Your task to perform on an android device: turn off javascript in the chrome app Image 0: 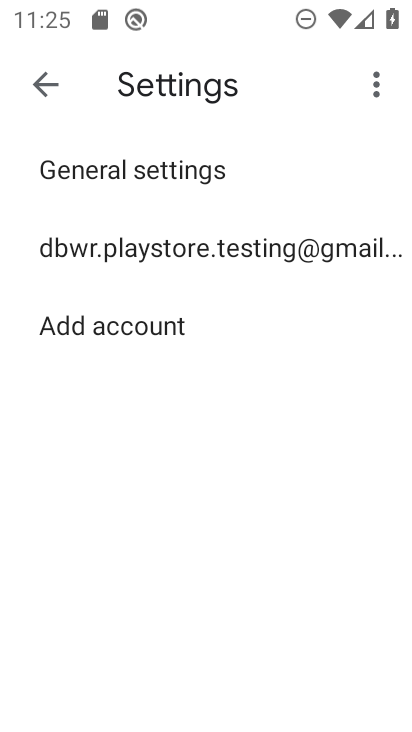
Step 0: drag from (207, 589) to (211, 307)
Your task to perform on an android device: turn off javascript in the chrome app Image 1: 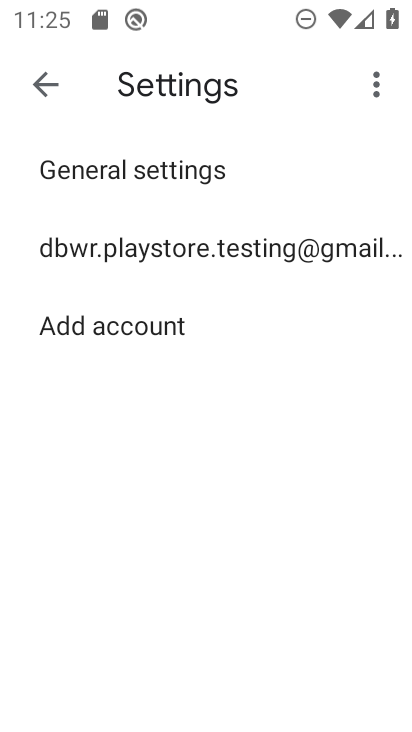
Step 1: press home button
Your task to perform on an android device: turn off javascript in the chrome app Image 2: 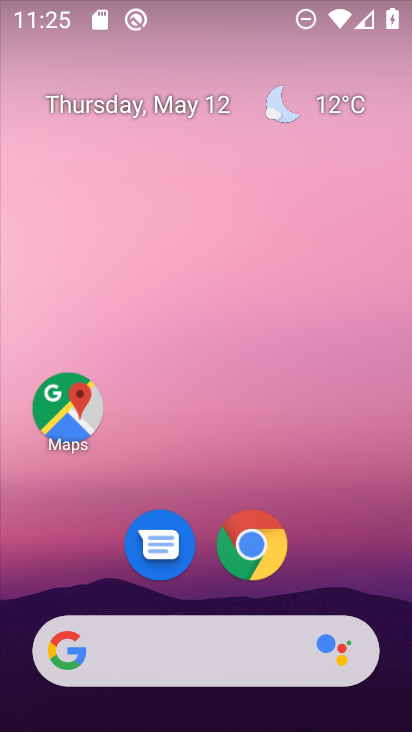
Step 2: click (236, 545)
Your task to perform on an android device: turn off javascript in the chrome app Image 3: 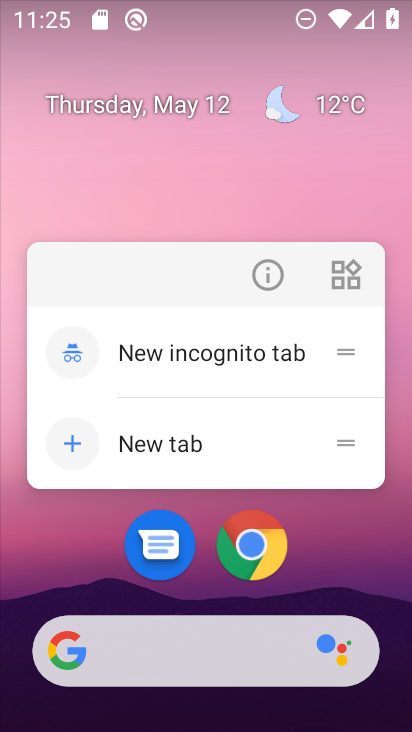
Step 3: click (255, 546)
Your task to perform on an android device: turn off javascript in the chrome app Image 4: 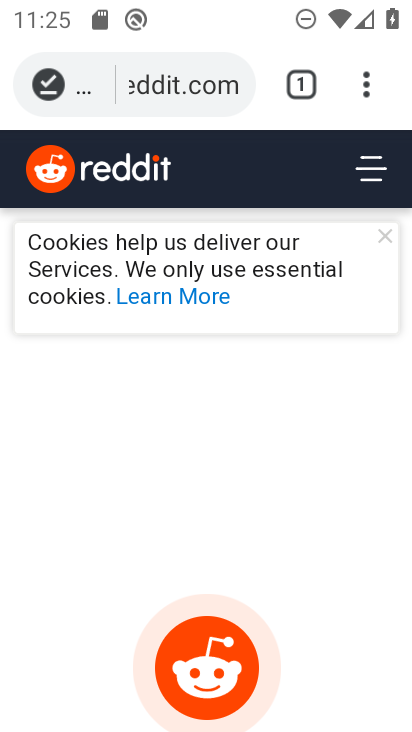
Step 4: click (362, 77)
Your task to perform on an android device: turn off javascript in the chrome app Image 5: 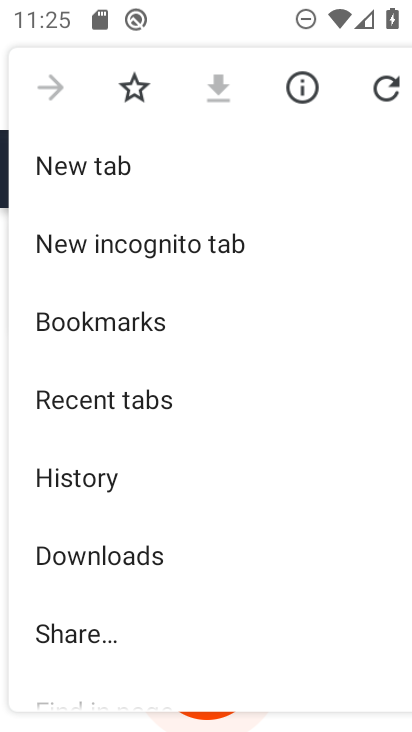
Step 5: drag from (182, 614) to (225, 53)
Your task to perform on an android device: turn off javascript in the chrome app Image 6: 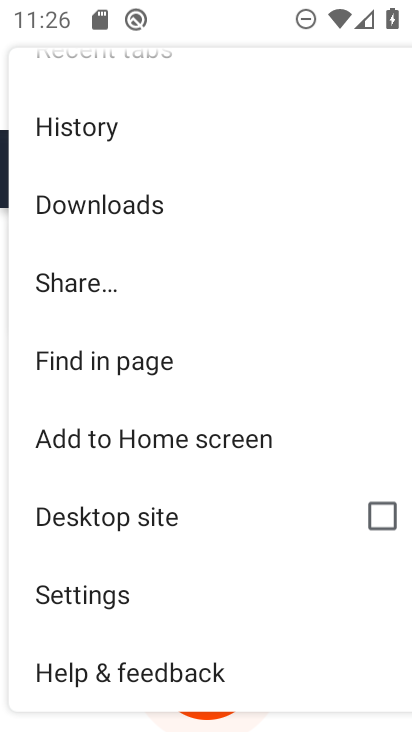
Step 6: click (134, 590)
Your task to perform on an android device: turn off javascript in the chrome app Image 7: 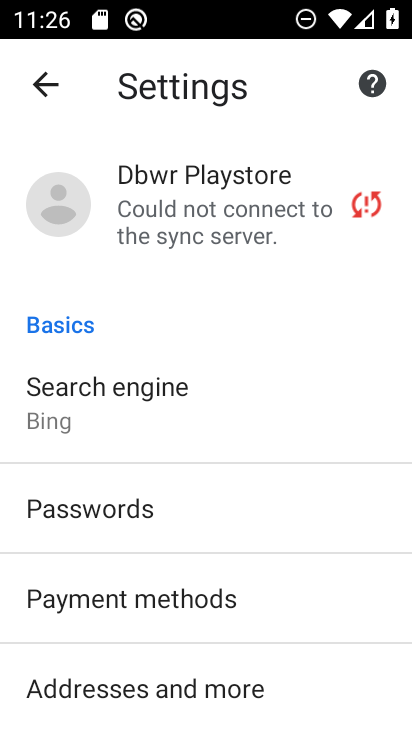
Step 7: drag from (256, 665) to (290, 187)
Your task to perform on an android device: turn off javascript in the chrome app Image 8: 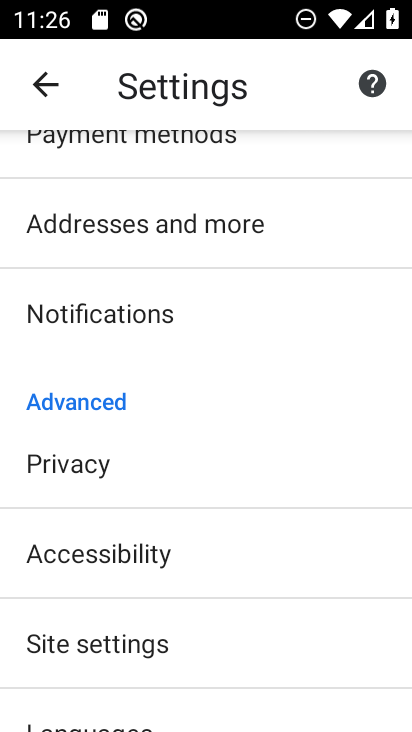
Step 8: click (192, 642)
Your task to perform on an android device: turn off javascript in the chrome app Image 9: 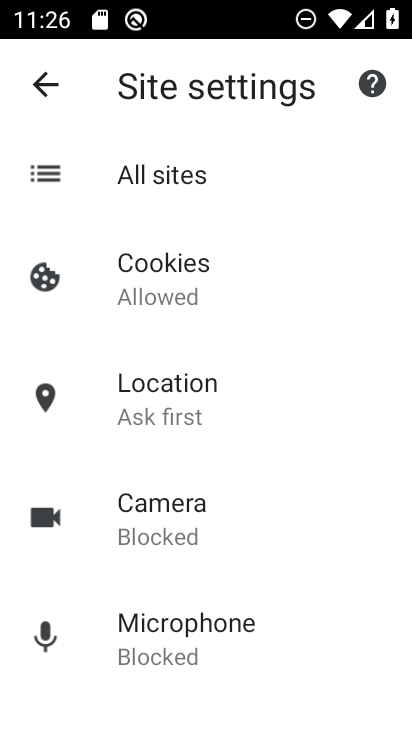
Step 9: drag from (229, 651) to (275, 272)
Your task to perform on an android device: turn off javascript in the chrome app Image 10: 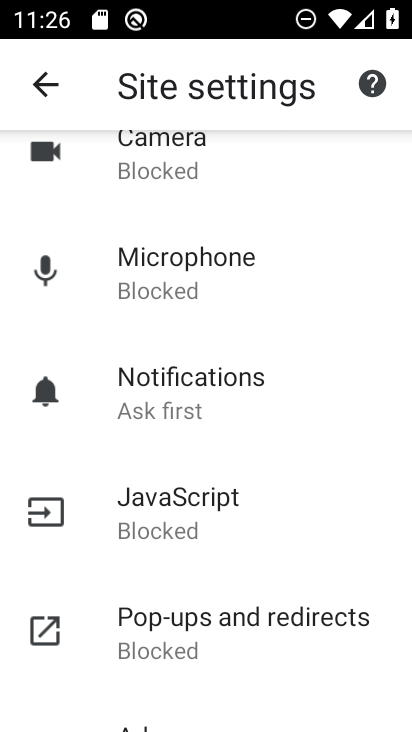
Step 10: click (101, 508)
Your task to perform on an android device: turn off javascript in the chrome app Image 11: 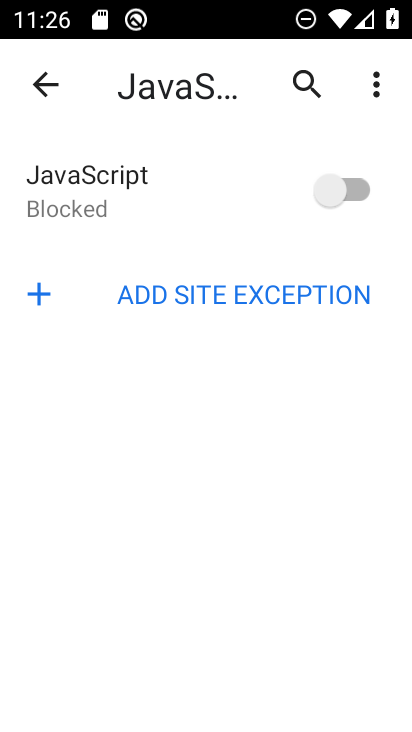
Step 11: task complete